Your task to perform on an android device: create a new album in the google photos Image 0: 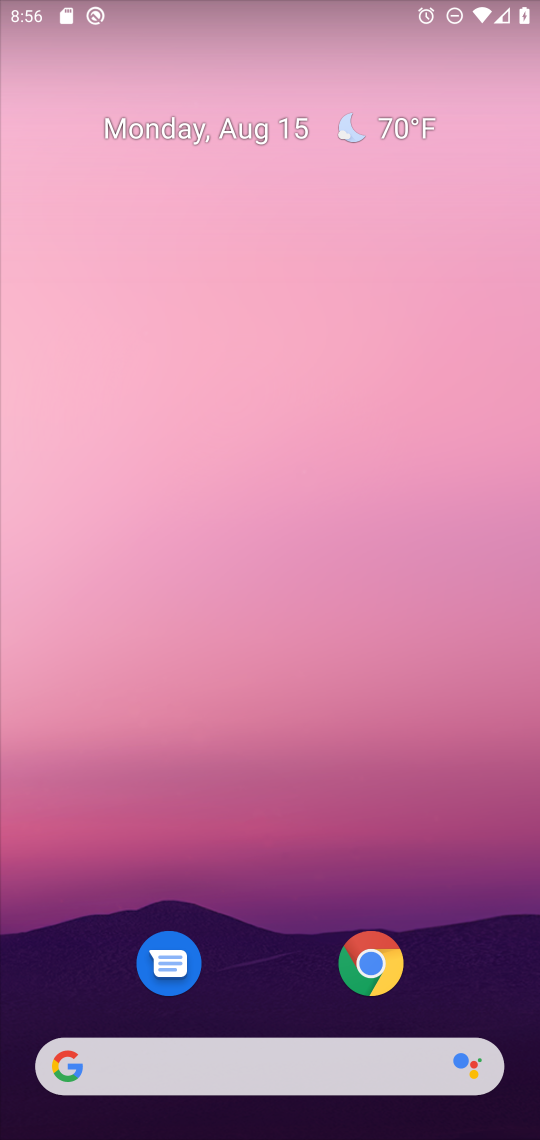
Step 0: drag from (278, 927) to (153, 260)
Your task to perform on an android device: create a new album in the google photos Image 1: 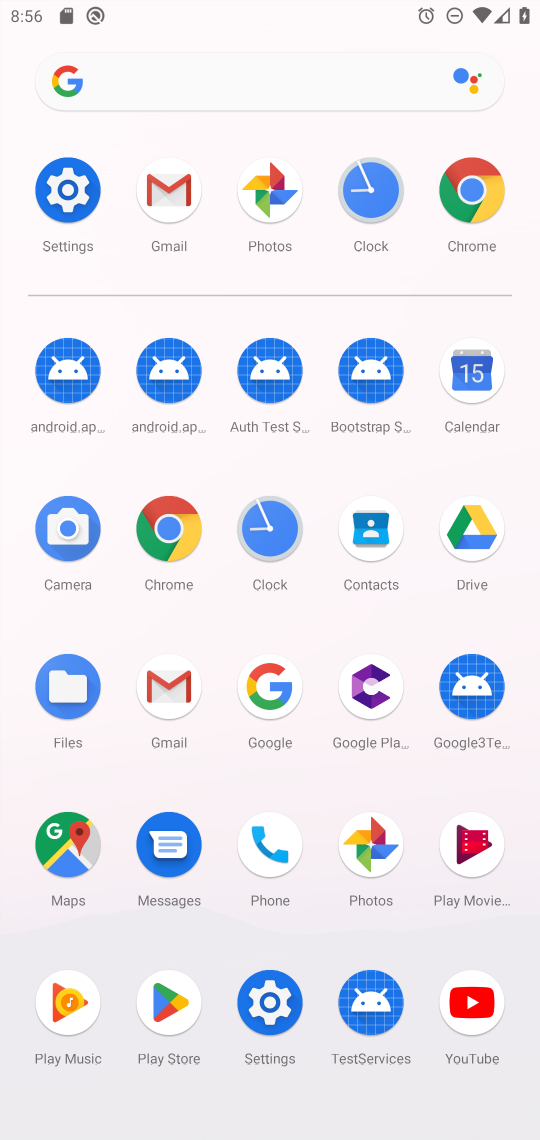
Step 1: click (267, 203)
Your task to perform on an android device: create a new album in the google photos Image 2: 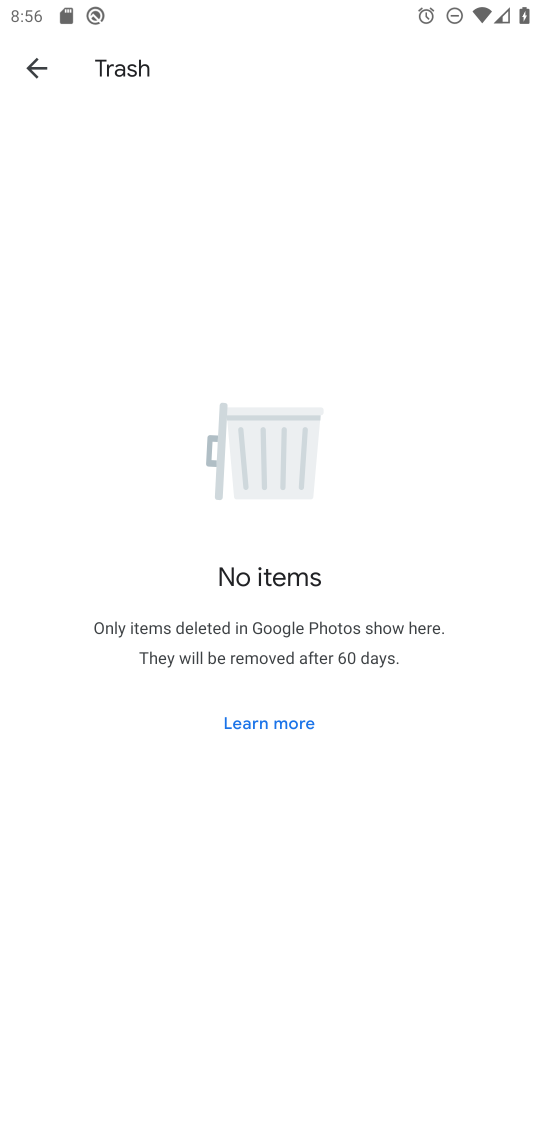
Step 2: task complete